Your task to perform on an android device: Open Google Chrome and click the shortcut for Amazon.com Image 0: 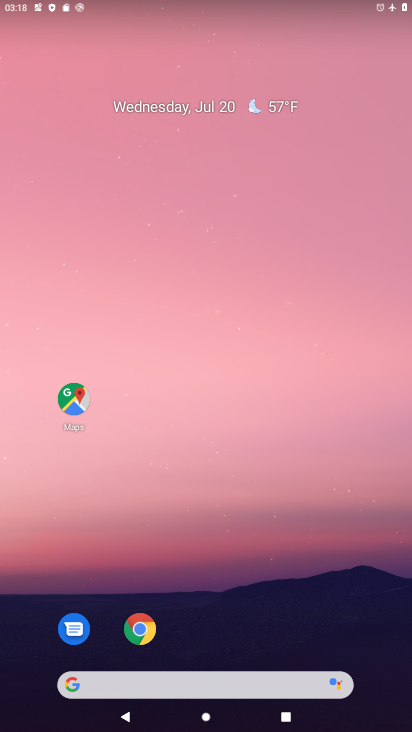
Step 0: click (138, 630)
Your task to perform on an android device: Open Google Chrome and click the shortcut for Amazon.com Image 1: 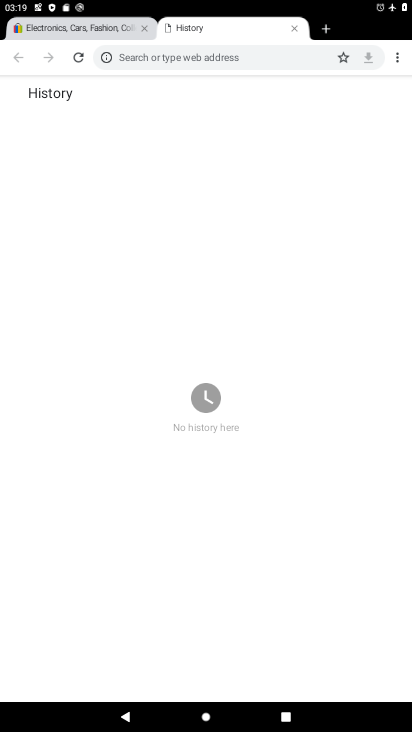
Step 1: click (396, 58)
Your task to perform on an android device: Open Google Chrome and click the shortcut for Amazon.com Image 2: 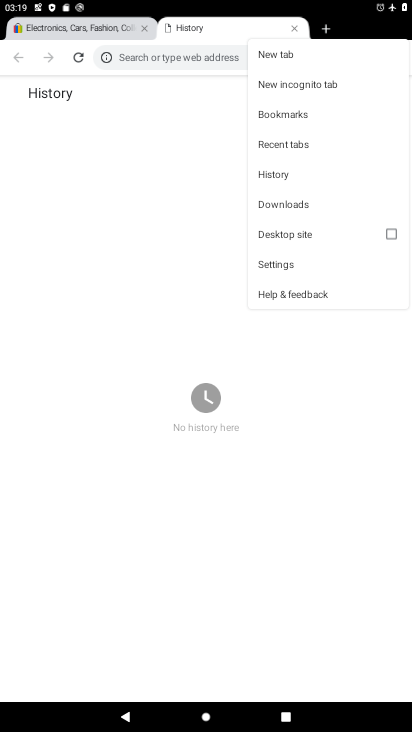
Step 2: click (282, 54)
Your task to perform on an android device: Open Google Chrome and click the shortcut for Amazon.com Image 3: 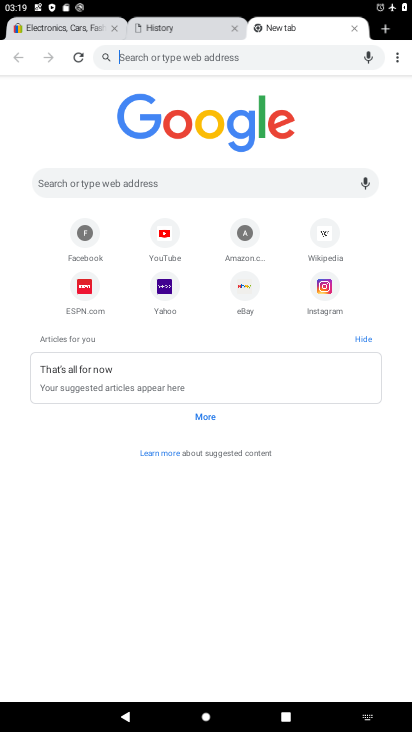
Step 3: click (244, 234)
Your task to perform on an android device: Open Google Chrome and click the shortcut for Amazon.com Image 4: 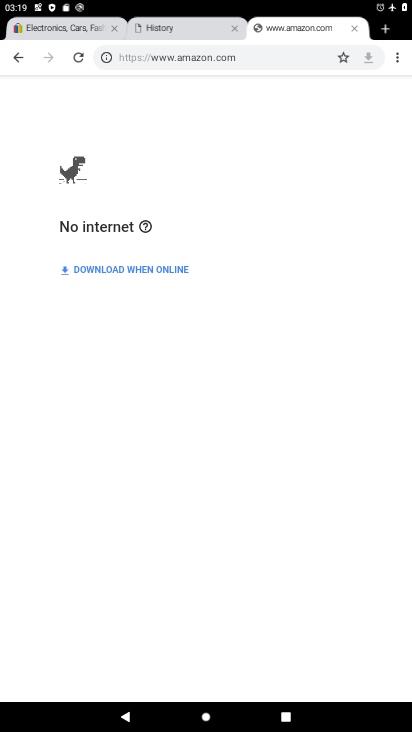
Step 4: click (78, 55)
Your task to perform on an android device: Open Google Chrome and click the shortcut for Amazon.com Image 5: 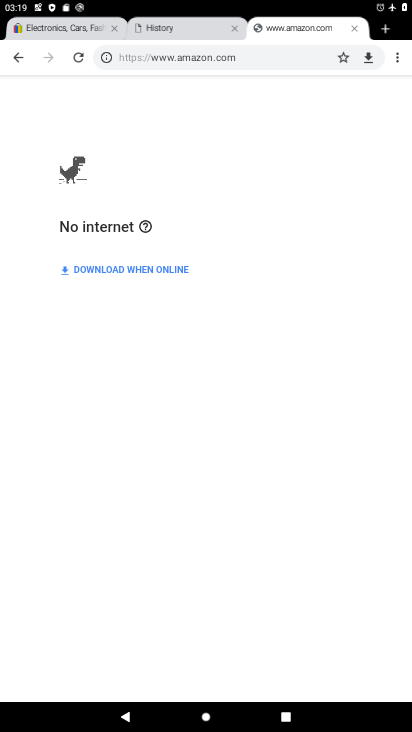
Step 5: task complete